Your task to perform on an android device: set the stopwatch Image 0: 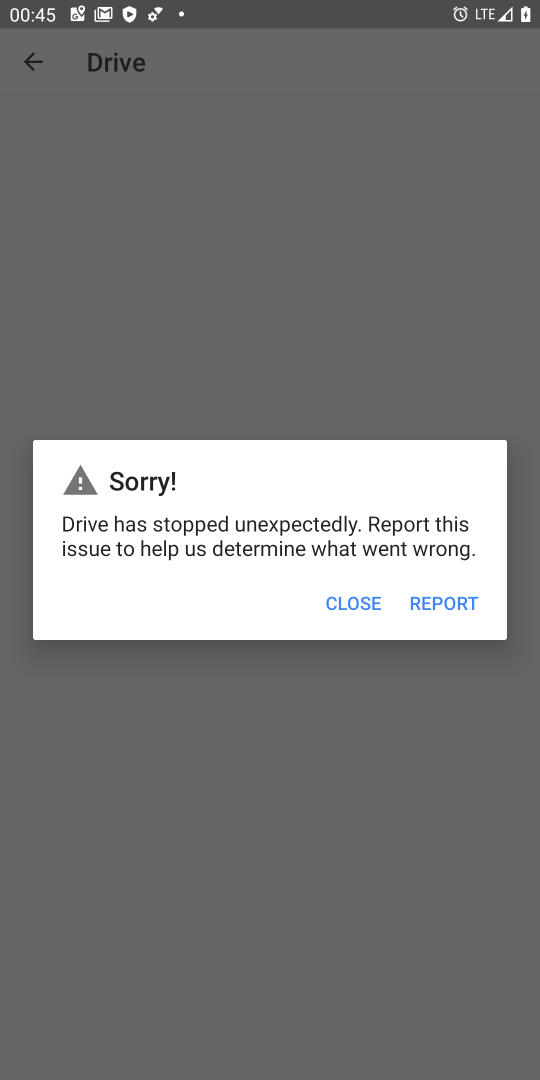
Step 0: press home button
Your task to perform on an android device: set the stopwatch Image 1: 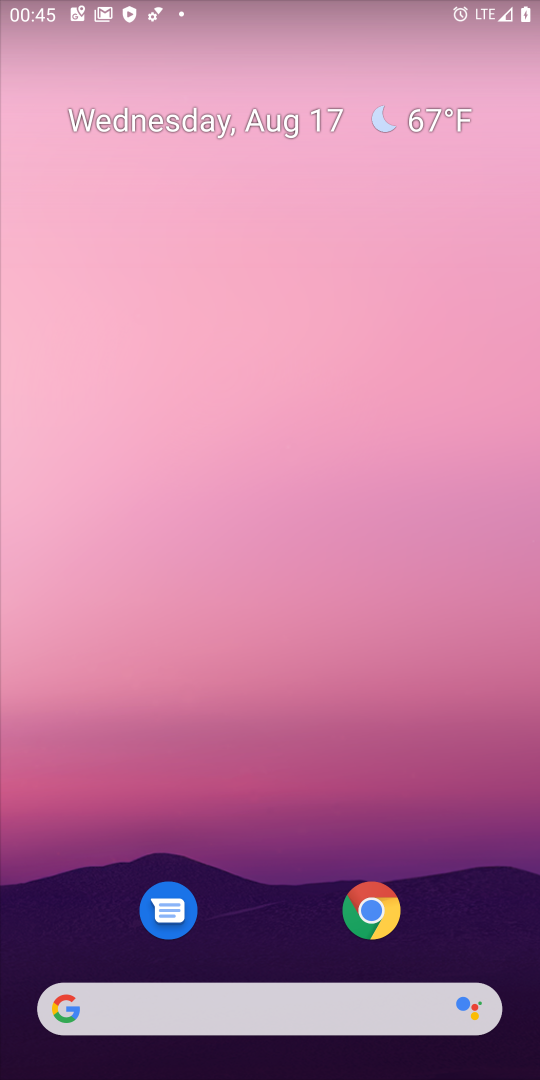
Step 1: drag from (269, 791) to (297, 220)
Your task to perform on an android device: set the stopwatch Image 2: 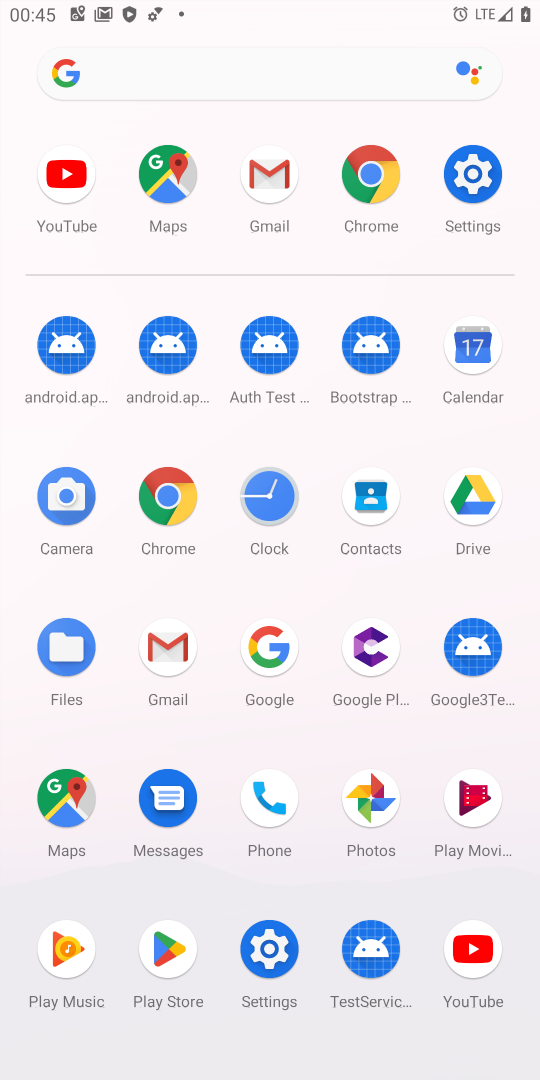
Step 2: click (269, 508)
Your task to perform on an android device: set the stopwatch Image 3: 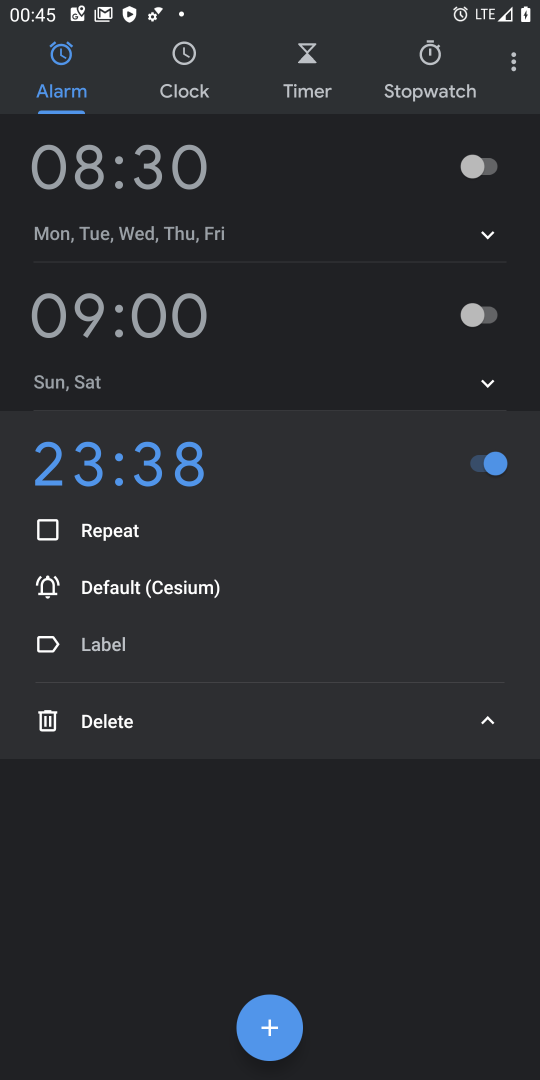
Step 3: click (462, 70)
Your task to perform on an android device: set the stopwatch Image 4: 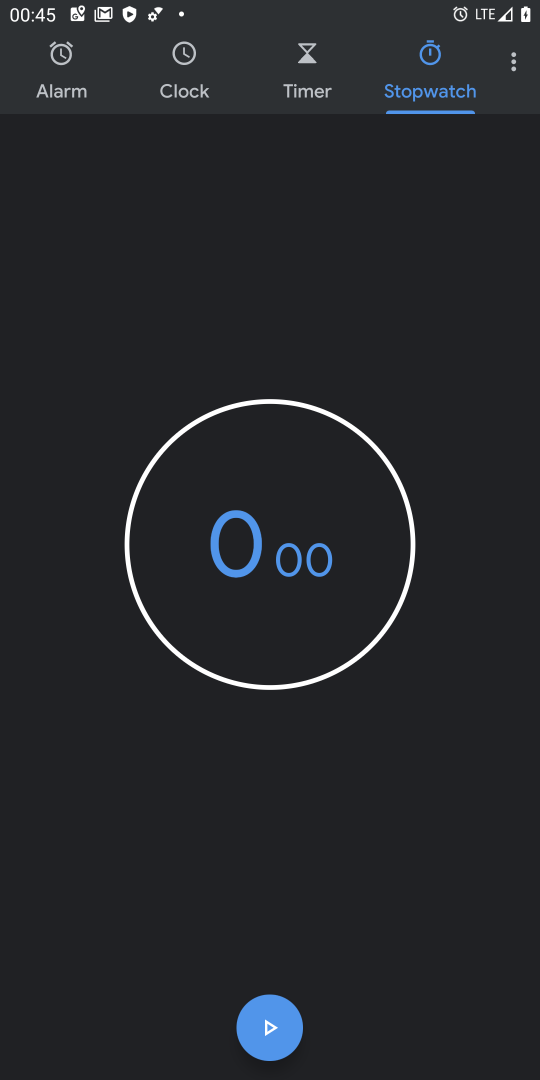
Step 4: click (287, 1005)
Your task to perform on an android device: set the stopwatch Image 5: 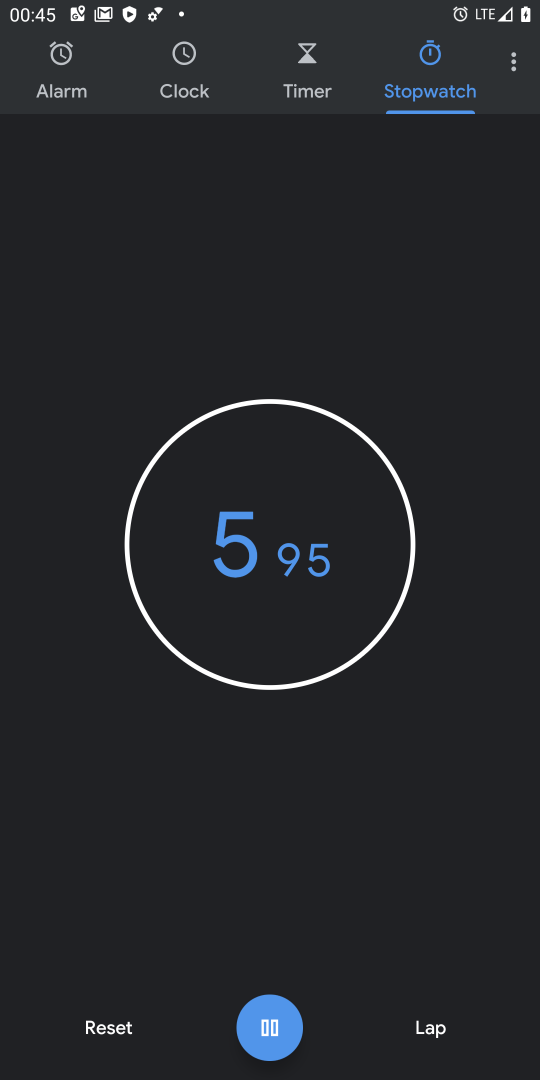
Step 5: click (250, 1031)
Your task to perform on an android device: set the stopwatch Image 6: 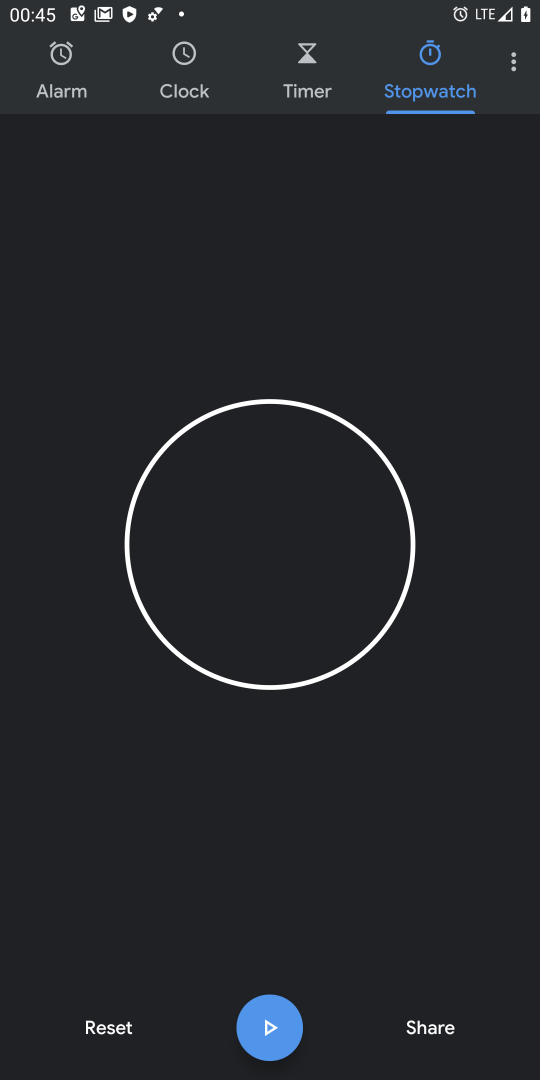
Step 6: task complete